Your task to perform on an android device: toggle show notifications on the lock screen Image 0: 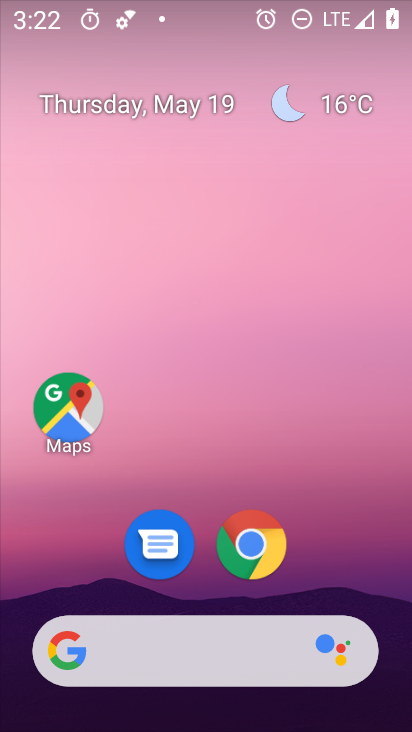
Step 0: drag from (306, 583) to (355, 37)
Your task to perform on an android device: toggle show notifications on the lock screen Image 1: 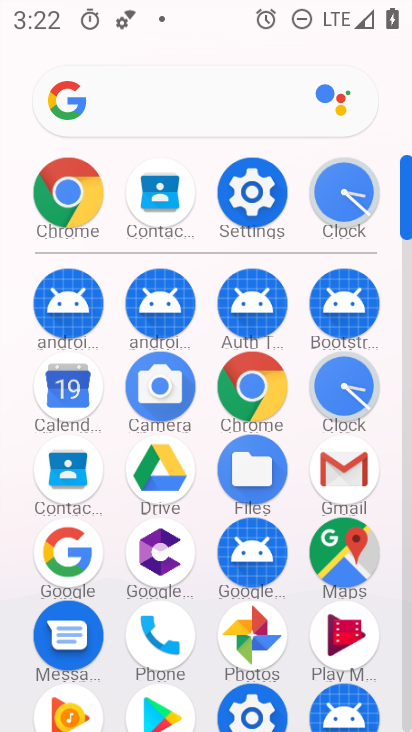
Step 1: click (257, 186)
Your task to perform on an android device: toggle show notifications on the lock screen Image 2: 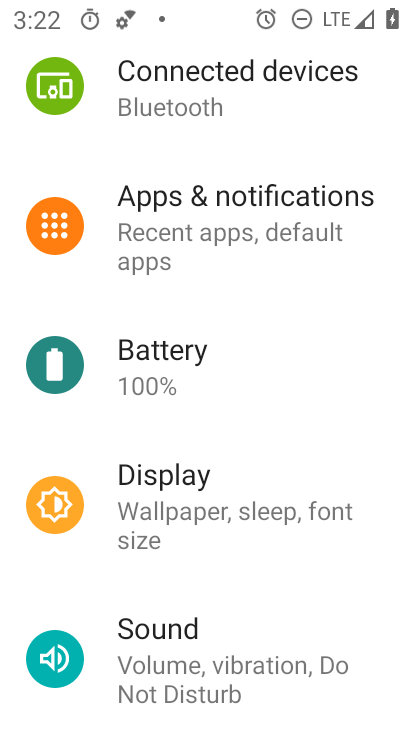
Step 2: click (267, 211)
Your task to perform on an android device: toggle show notifications on the lock screen Image 3: 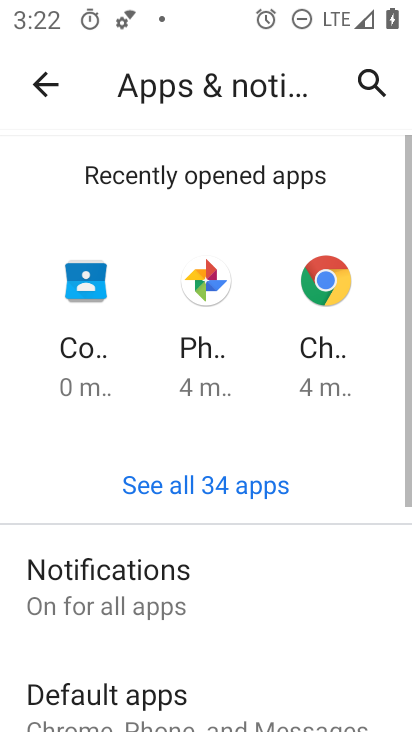
Step 3: click (171, 622)
Your task to perform on an android device: toggle show notifications on the lock screen Image 4: 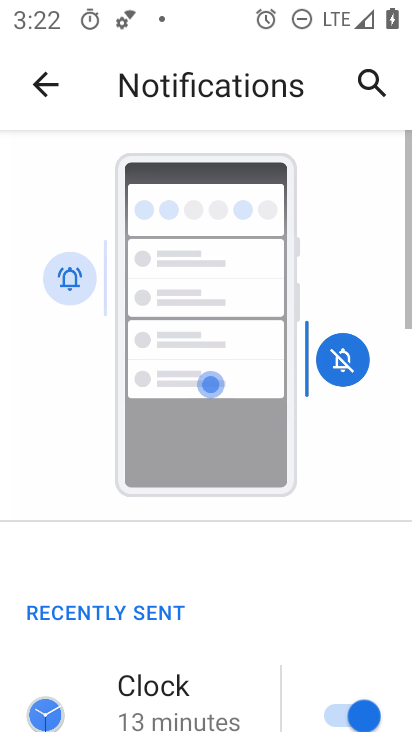
Step 4: drag from (171, 622) to (212, 152)
Your task to perform on an android device: toggle show notifications on the lock screen Image 5: 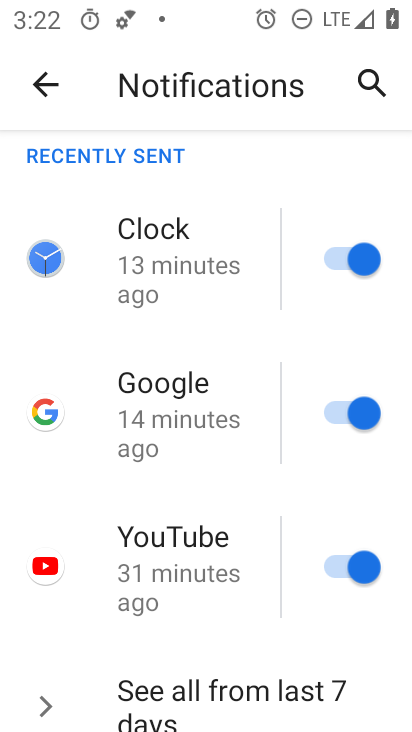
Step 5: drag from (194, 570) to (259, 143)
Your task to perform on an android device: toggle show notifications on the lock screen Image 6: 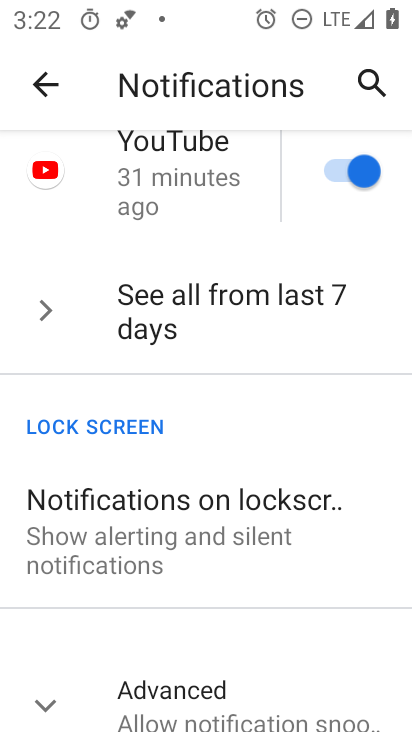
Step 6: click (194, 538)
Your task to perform on an android device: toggle show notifications on the lock screen Image 7: 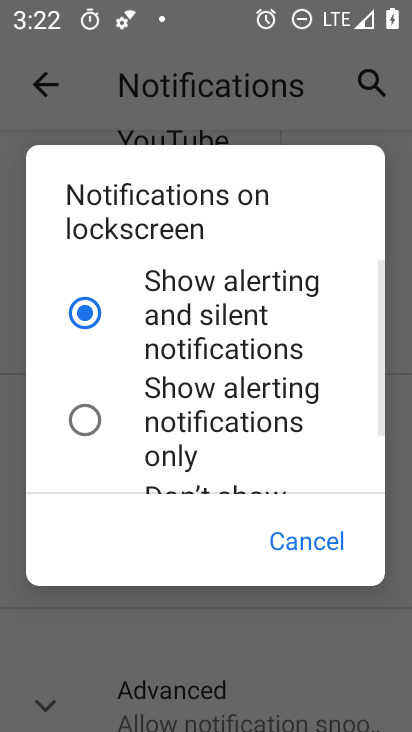
Step 7: click (187, 374)
Your task to perform on an android device: toggle show notifications on the lock screen Image 8: 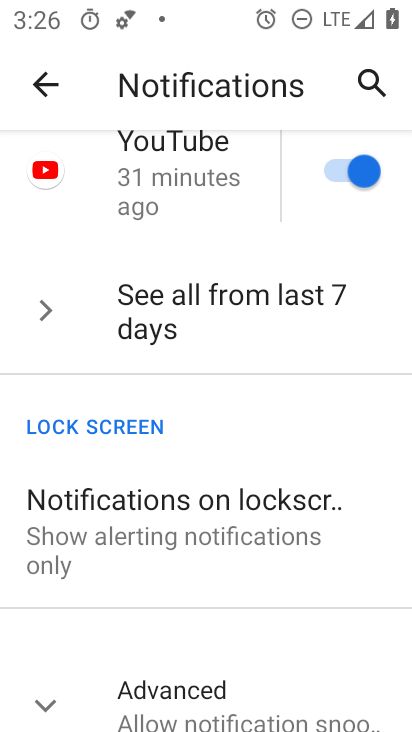
Step 8: task complete